Your task to perform on an android device: turn smart compose on in the gmail app Image 0: 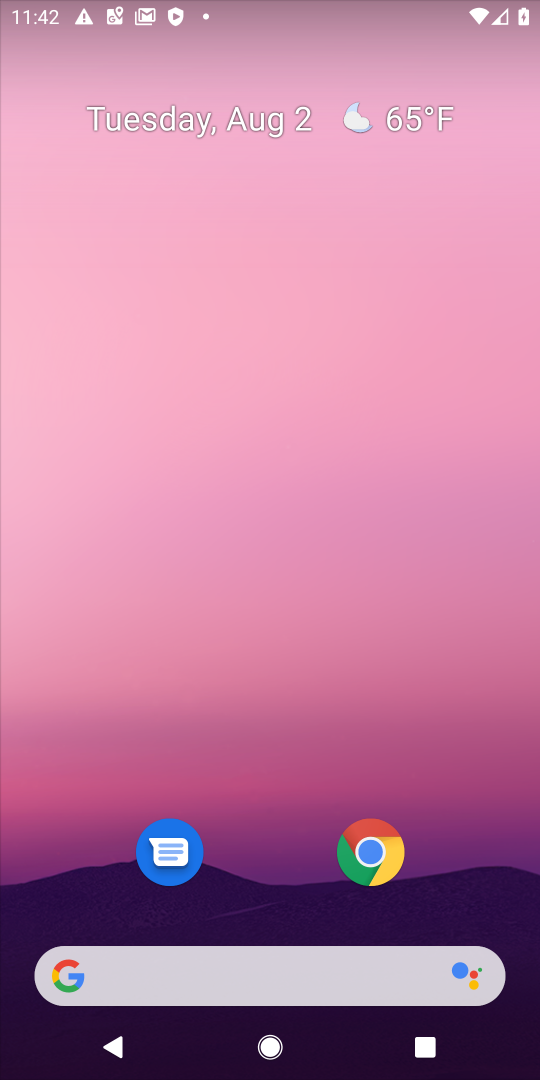
Step 0: drag from (507, 882) to (359, 127)
Your task to perform on an android device: turn smart compose on in the gmail app Image 1: 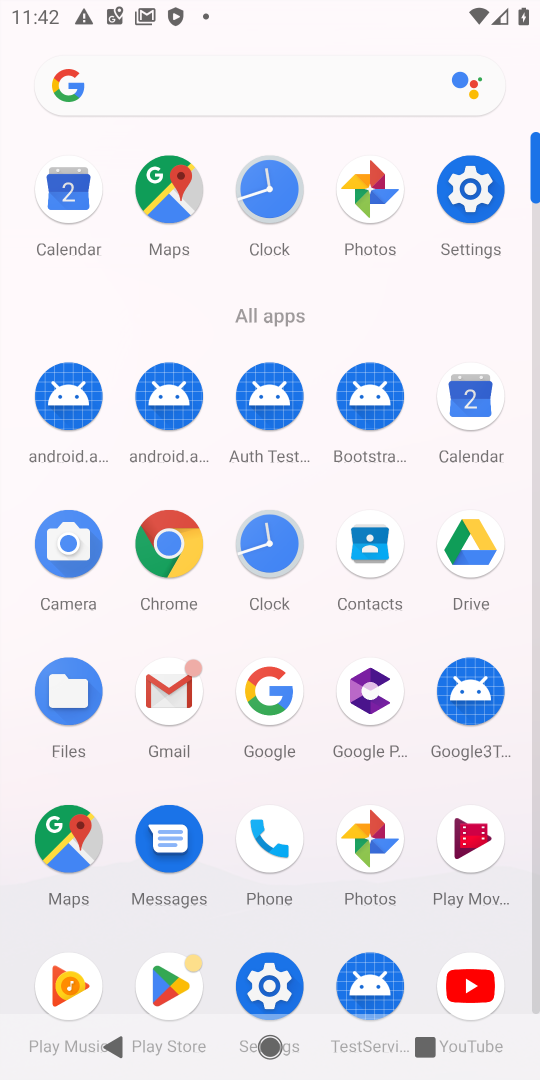
Step 1: click (174, 708)
Your task to perform on an android device: turn smart compose on in the gmail app Image 2: 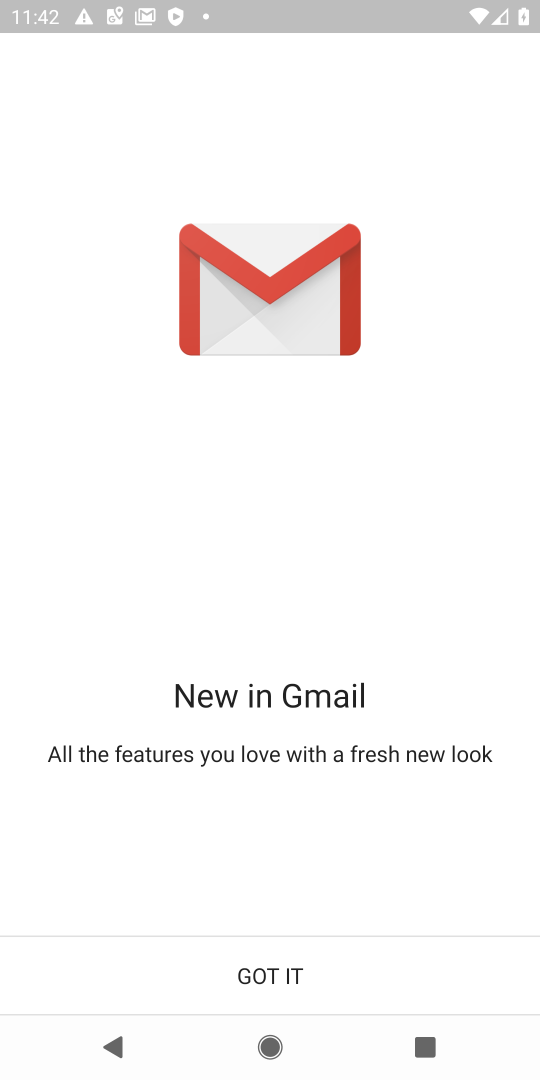
Step 2: click (270, 979)
Your task to perform on an android device: turn smart compose on in the gmail app Image 3: 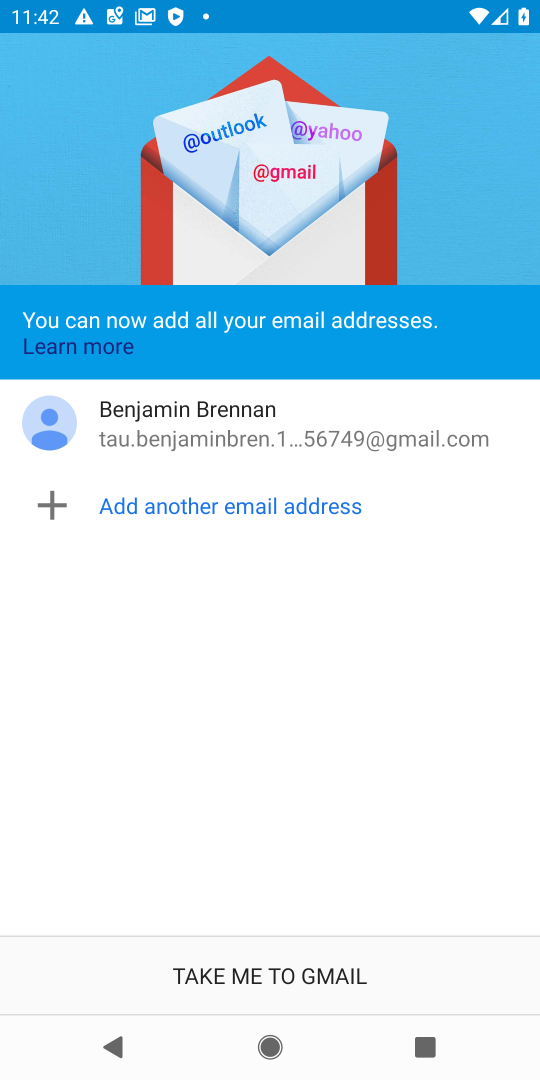
Step 3: click (270, 979)
Your task to perform on an android device: turn smart compose on in the gmail app Image 4: 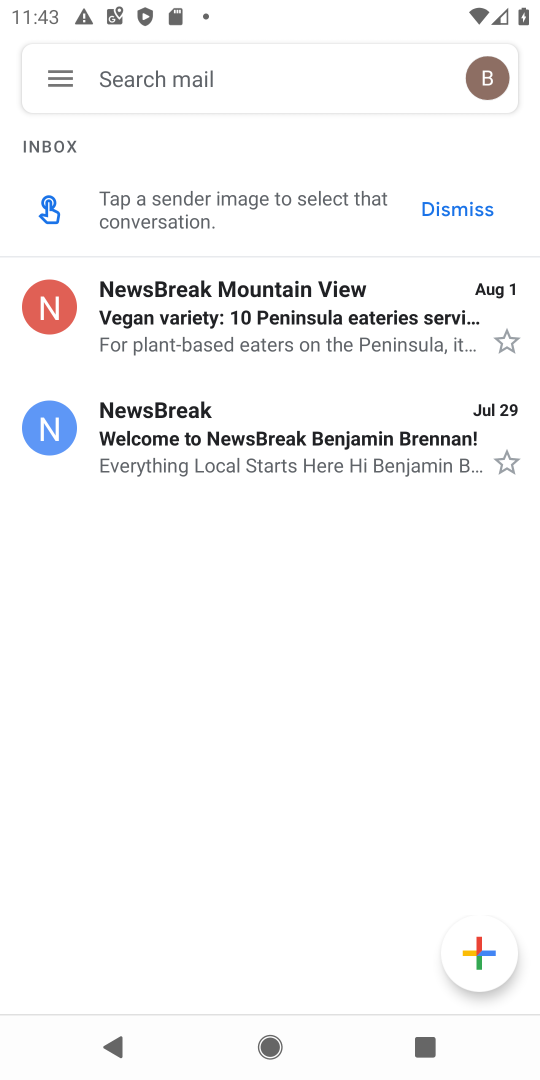
Step 4: click (58, 69)
Your task to perform on an android device: turn smart compose on in the gmail app Image 5: 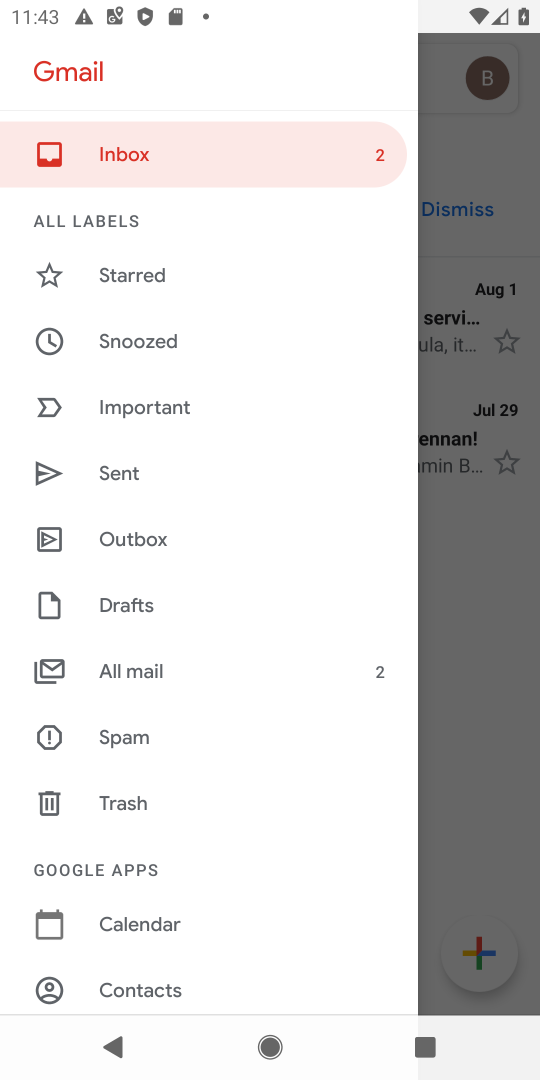
Step 5: drag from (176, 913) to (156, 143)
Your task to perform on an android device: turn smart compose on in the gmail app Image 6: 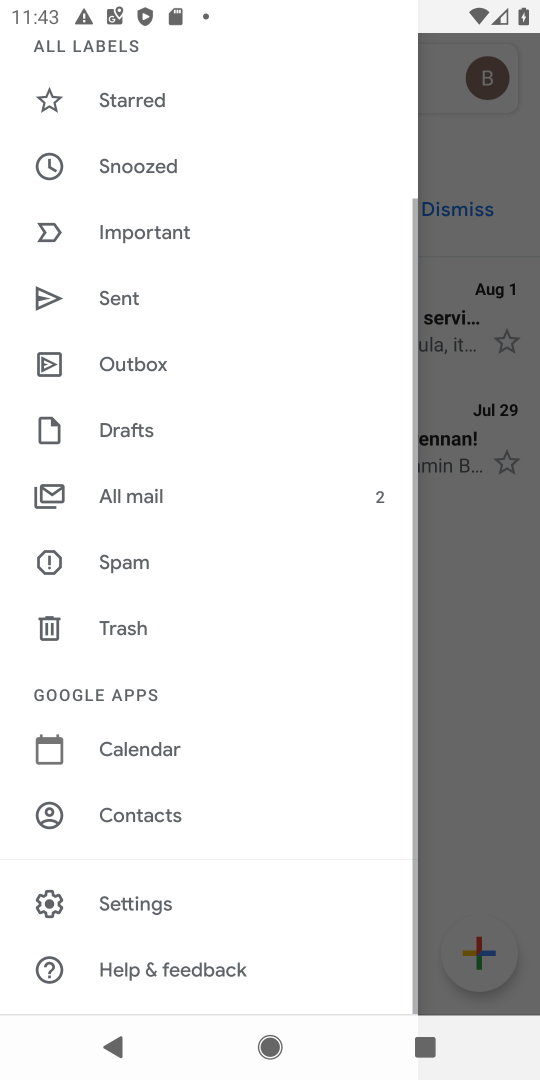
Step 6: click (142, 896)
Your task to perform on an android device: turn smart compose on in the gmail app Image 7: 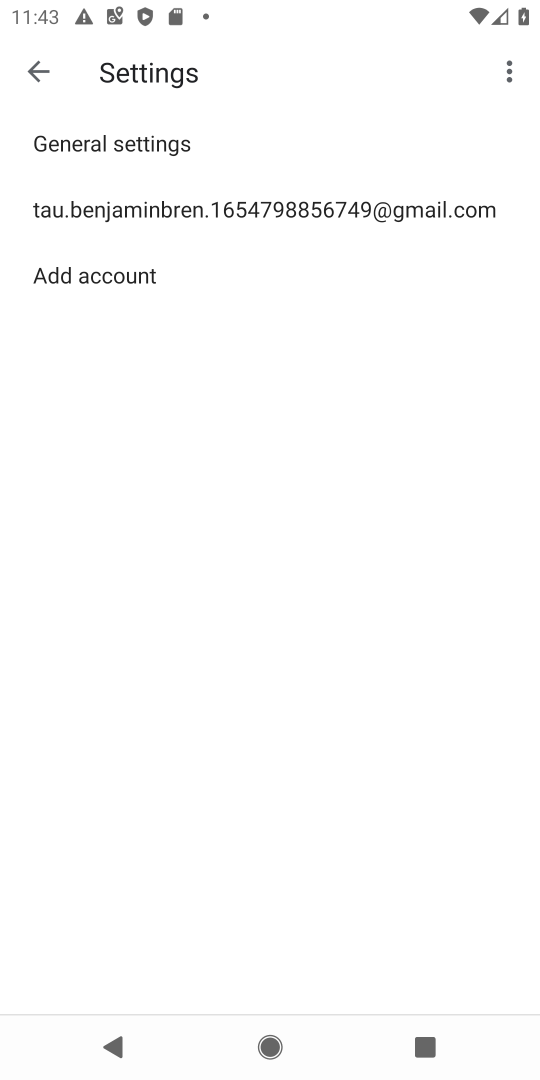
Step 7: click (252, 222)
Your task to perform on an android device: turn smart compose on in the gmail app Image 8: 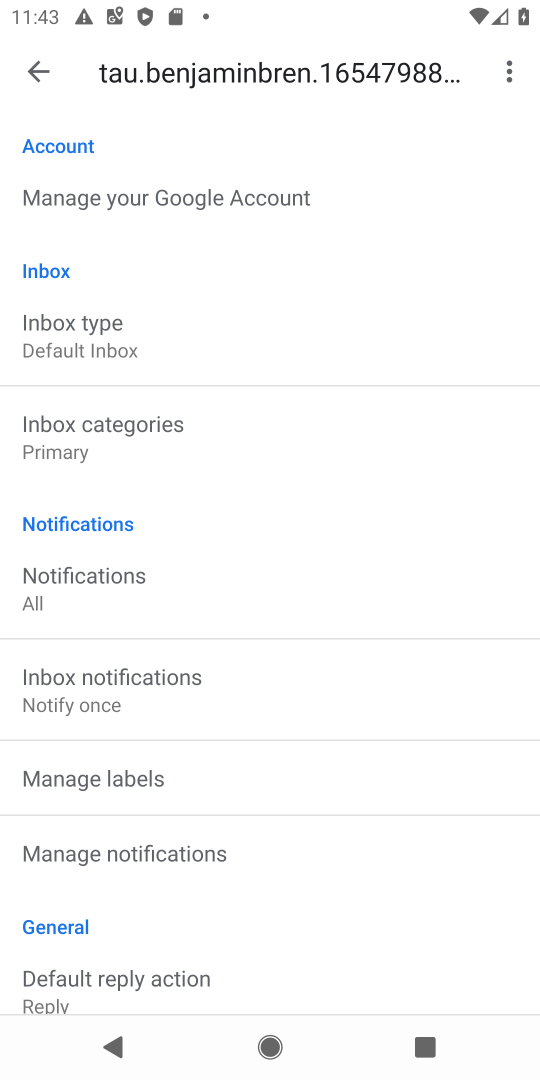
Step 8: task complete